Your task to perform on an android device: Search for Mexican restaurants on Maps Image 0: 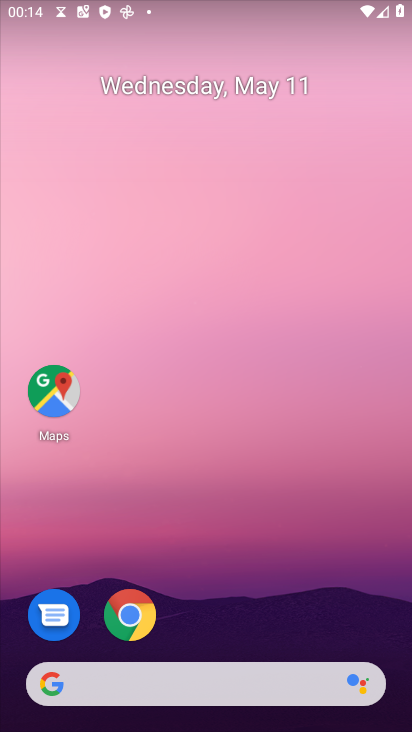
Step 0: click (52, 395)
Your task to perform on an android device: Search for Mexican restaurants on Maps Image 1: 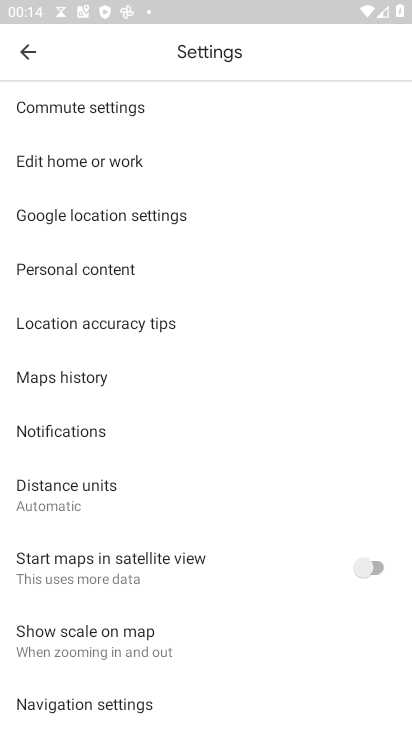
Step 1: press back button
Your task to perform on an android device: Search for Mexican restaurants on Maps Image 2: 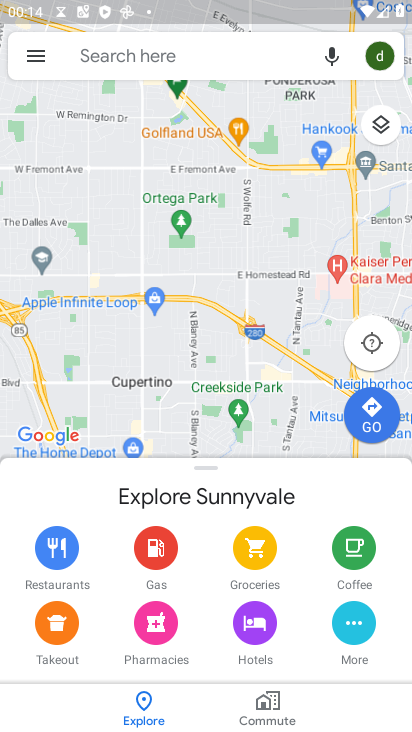
Step 2: click (179, 58)
Your task to perform on an android device: Search for Mexican restaurants on Maps Image 3: 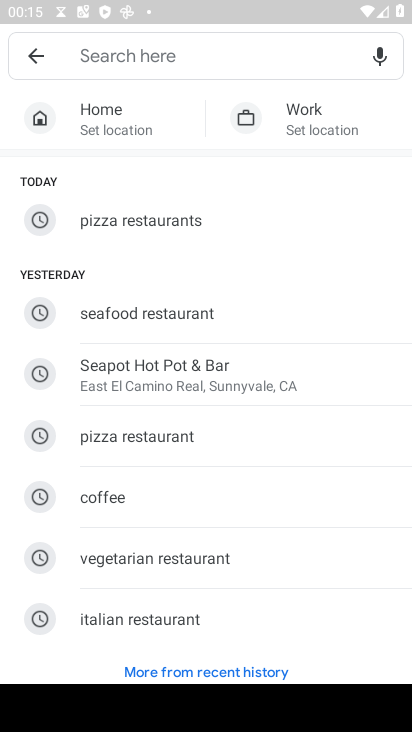
Step 3: type "Mexican restaurants"
Your task to perform on an android device: Search for Mexican restaurants on Maps Image 4: 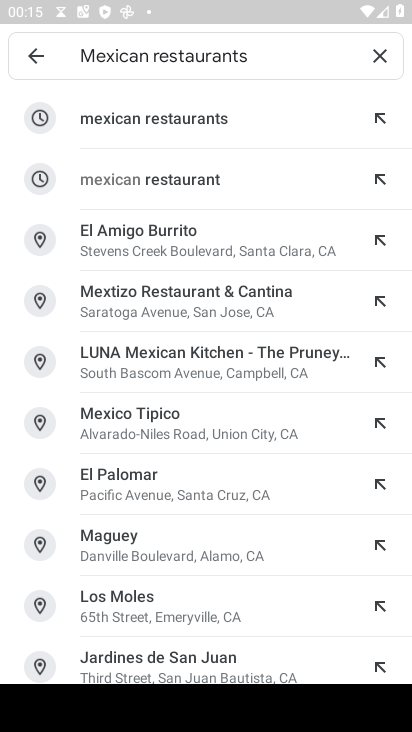
Step 4: click (204, 122)
Your task to perform on an android device: Search for Mexican restaurants on Maps Image 5: 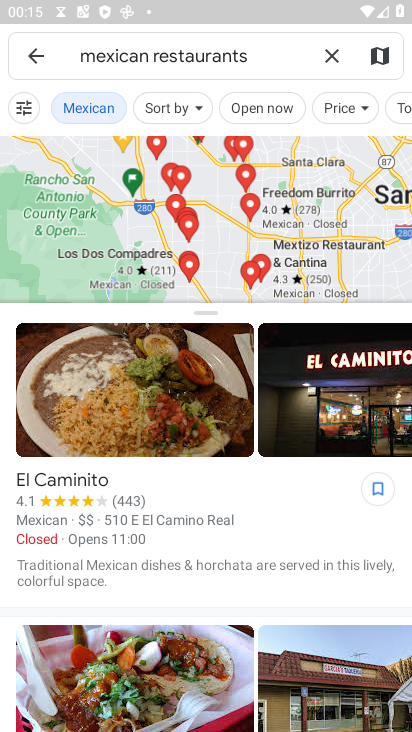
Step 5: task complete